Your task to perform on an android device: Open Wikipedia Image 0: 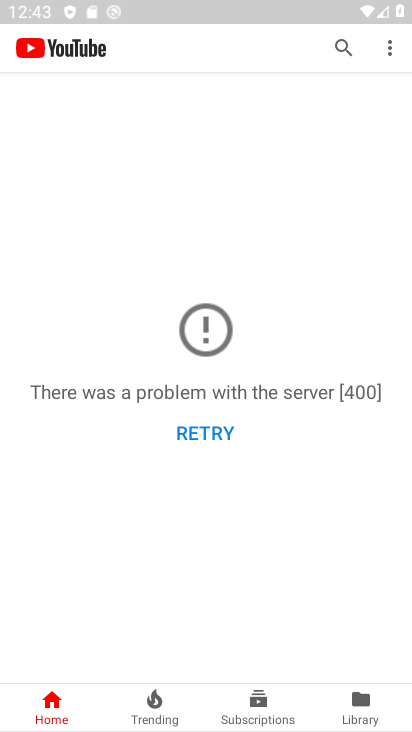
Step 0: press home button
Your task to perform on an android device: Open Wikipedia Image 1: 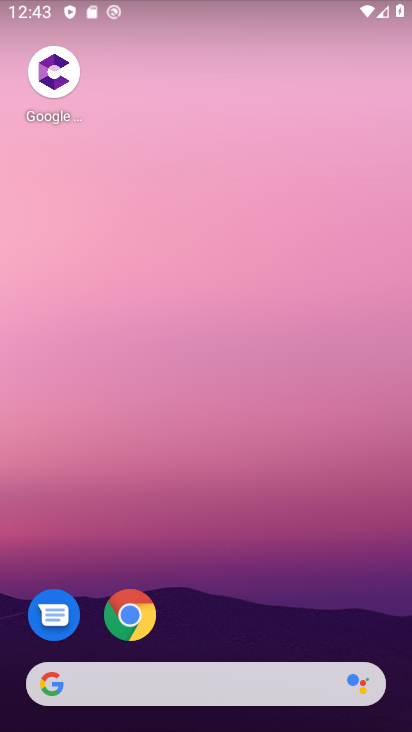
Step 1: drag from (372, 593) to (287, 210)
Your task to perform on an android device: Open Wikipedia Image 2: 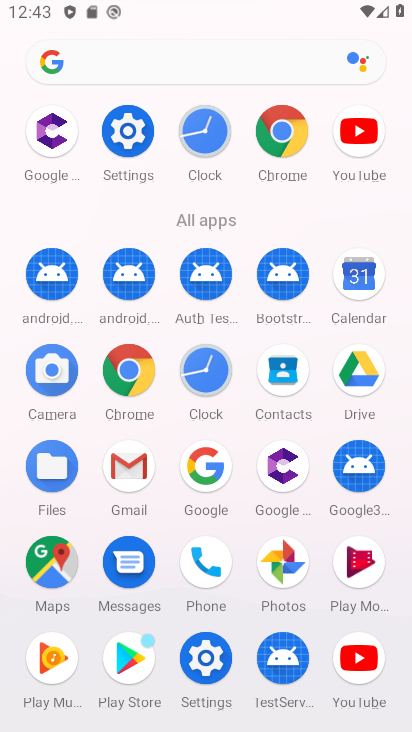
Step 2: click (142, 372)
Your task to perform on an android device: Open Wikipedia Image 3: 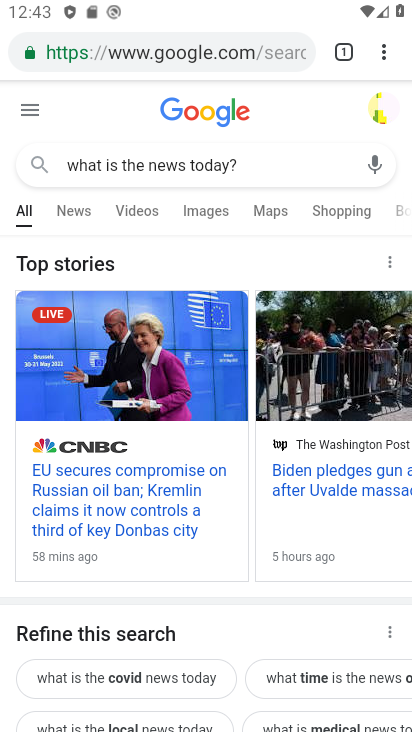
Step 3: click (168, 40)
Your task to perform on an android device: Open Wikipedia Image 4: 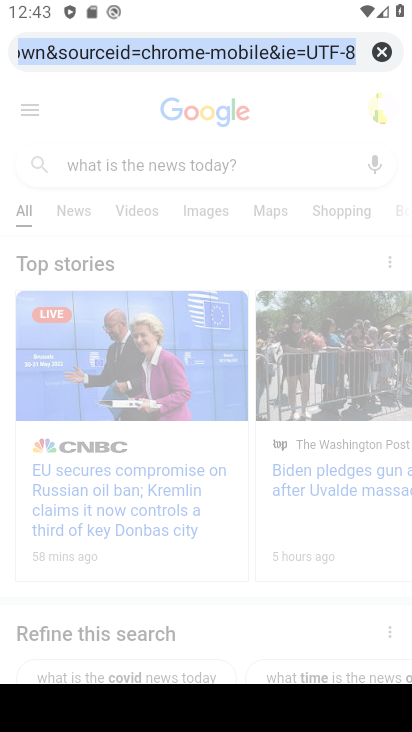
Step 4: click (384, 55)
Your task to perform on an android device: Open Wikipedia Image 5: 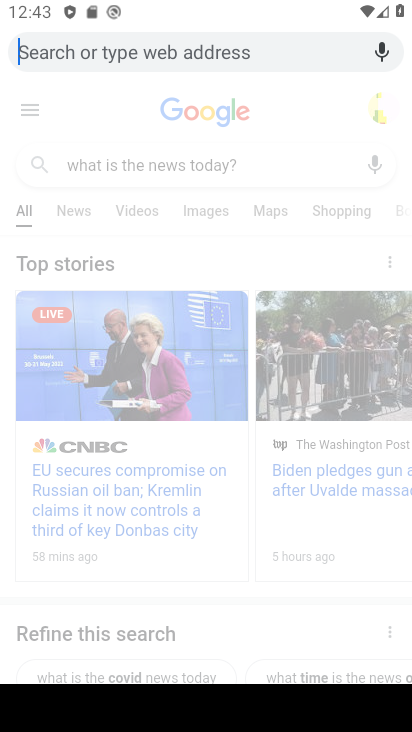
Step 5: type "wikipedia"
Your task to perform on an android device: Open Wikipedia Image 6: 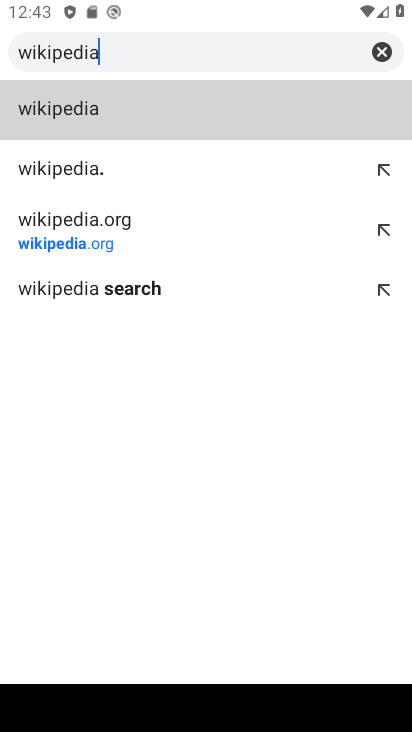
Step 6: click (148, 115)
Your task to perform on an android device: Open Wikipedia Image 7: 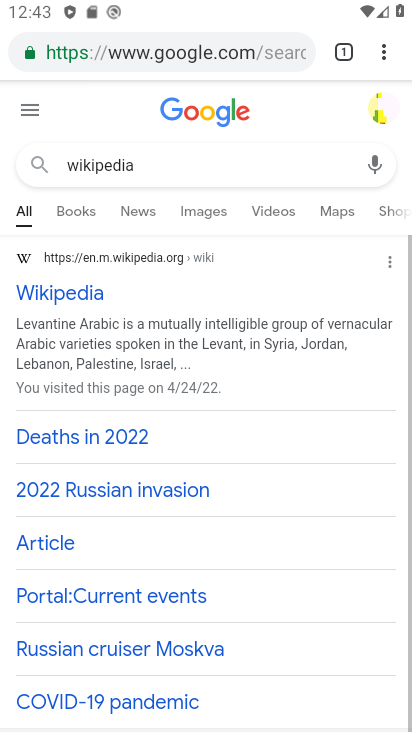
Step 7: click (37, 289)
Your task to perform on an android device: Open Wikipedia Image 8: 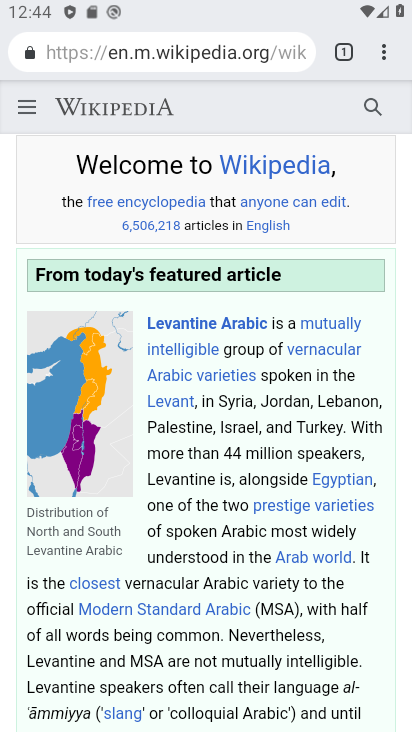
Step 8: task complete